Your task to perform on an android device: Go to settings Image 0: 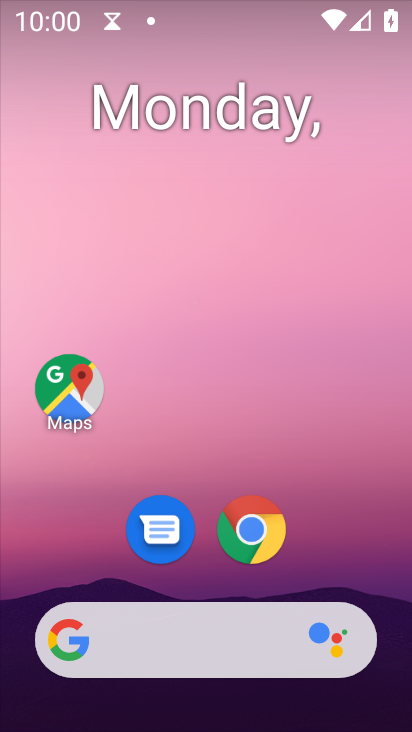
Step 0: drag from (320, 542) to (255, 119)
Your task to perform on an android device: Go to settings Image 1: 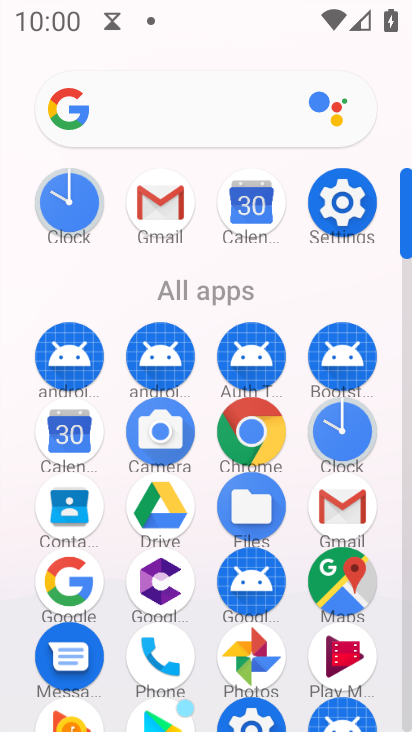
Step 1: click (346, 199)
Your task to perform on an android device: Go to settings Image 2: 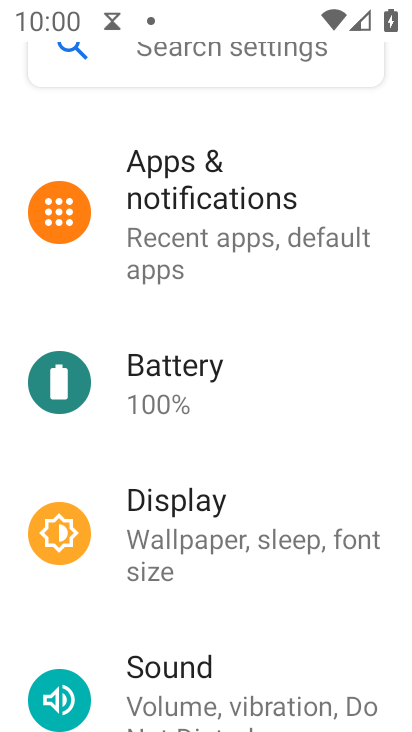
Step 2: task complete